Your task to perform on an android device: Go to accessibility settings Image 0: 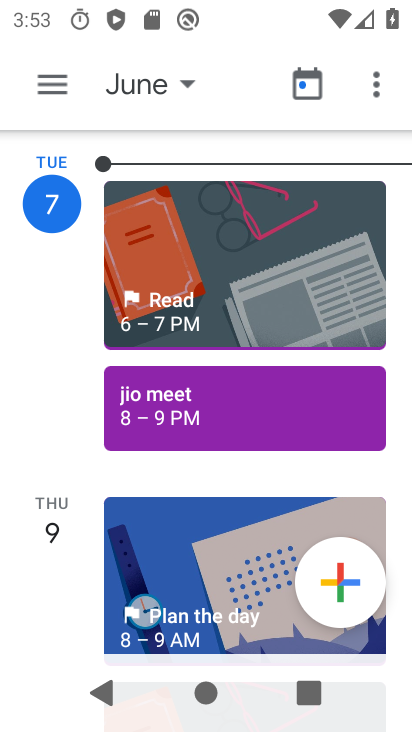
Step 0: press home button
Your task to perform on an android device: Go to accessibility settings Image 1: 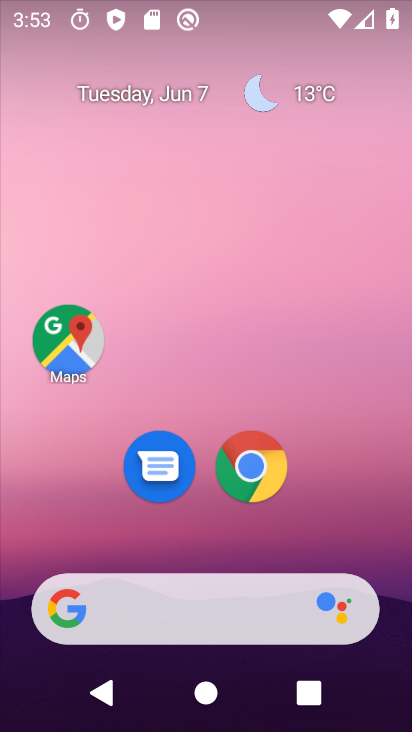
Step 1: drag from (387, 539) to (308, 185)
Your task to perform on an android device: Go to accessibility settings Image 2: 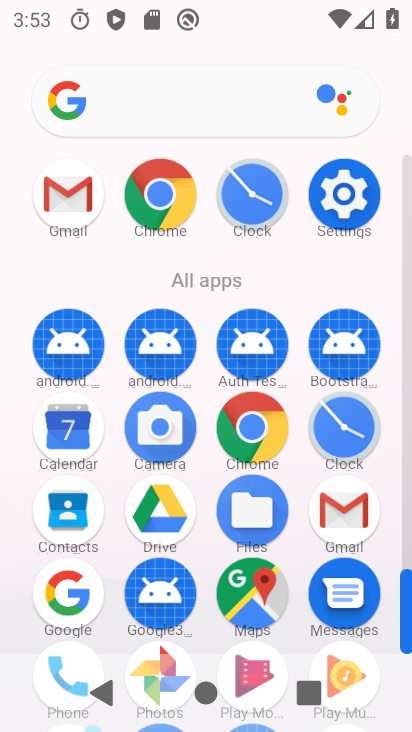
Step 2: click (363, 199)
Your task to perform on an android device: Go to accessibility settings Image 3: 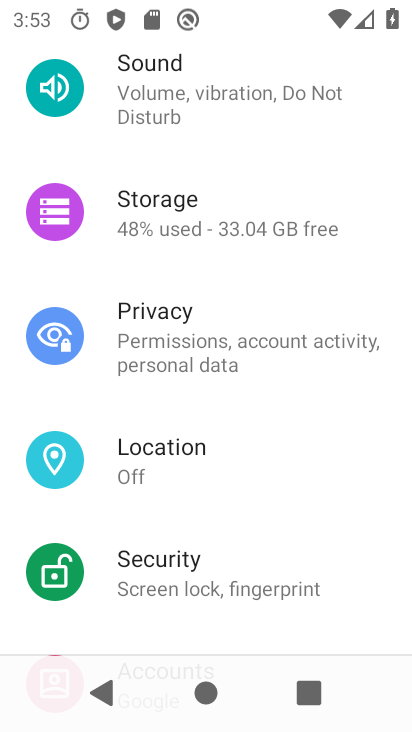
Step 3: drag from (288, 505) to (233, 93)
Your task to perform on an android device: Go to accessibility settings Image 4: 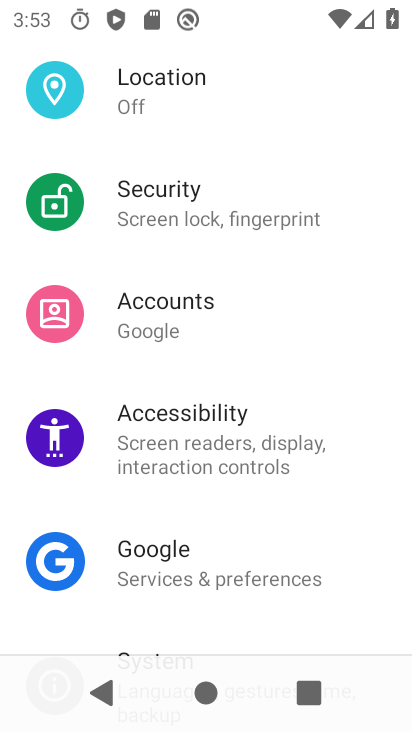
Step 4: click (273, 452)
Your task to perform on an android device: Go to accessibility settings Image 5: 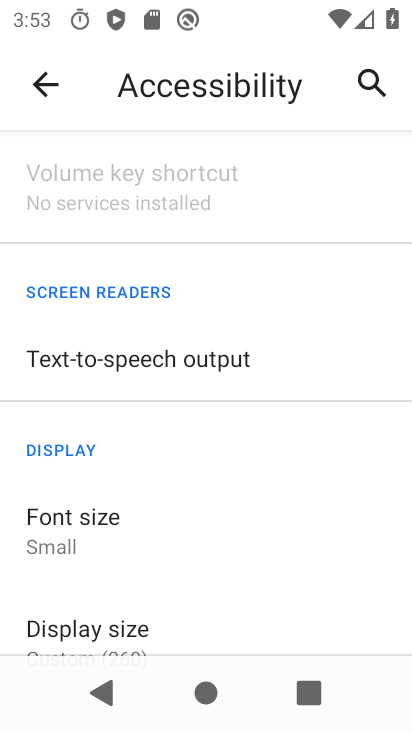
Step 5: task complete